Your task to perform on an android device: Open the stopwatch Image 0: 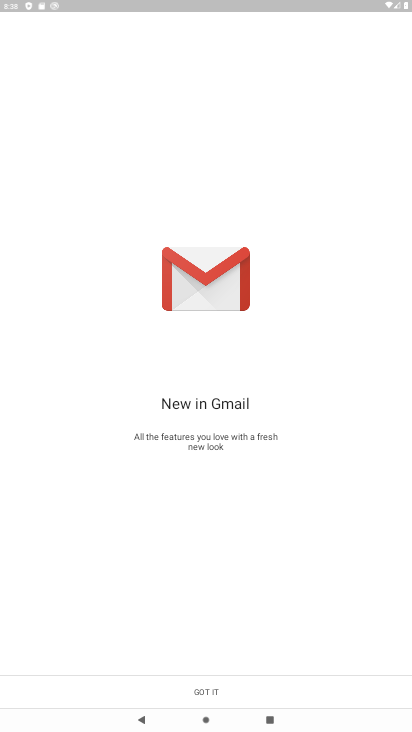
Step 0: click (229, 696)
Your task to perform on an android device: Open the stopwatch Image 1: 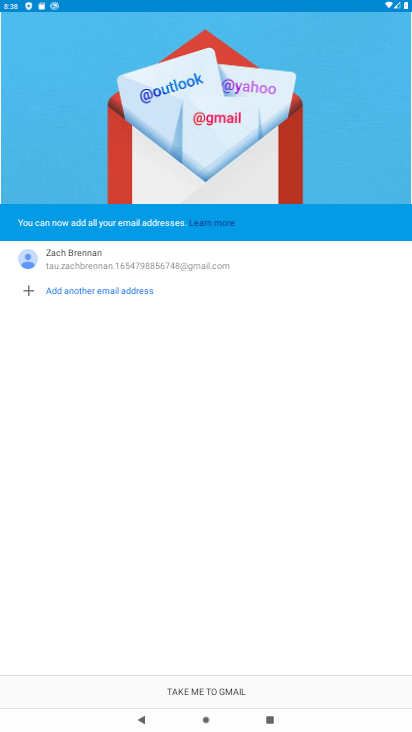
Step 1: click (230, 695)
Your task to perform on an android device: Open the stopwatch Image 2: 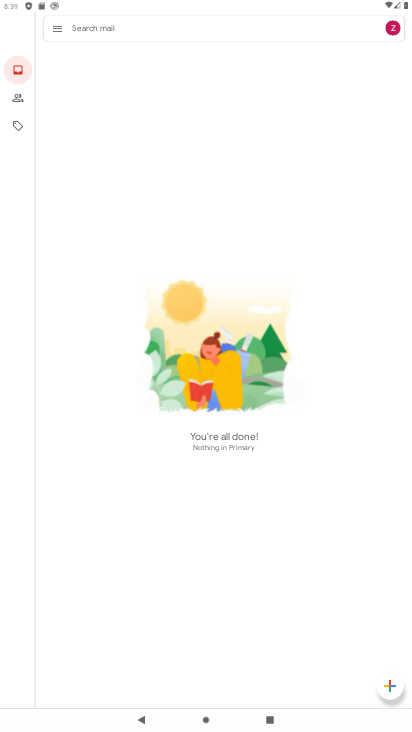
Step 2: press home button
Your task to perform on an android device: Open the stopwatch Image 3: 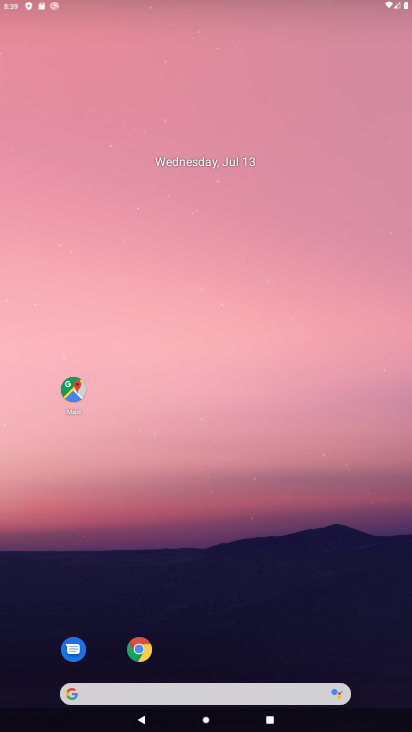
Step 3: drag from (251, 698) to (305, 58)
Your task to perform on an android device: Open the stopwatch Image 4: 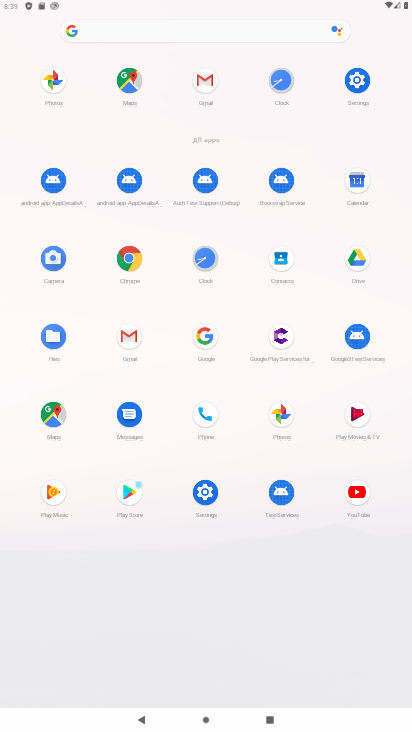
Step 4: click (201, 255)
Your task to perform on an android device: Open the stopwatch Image 5: 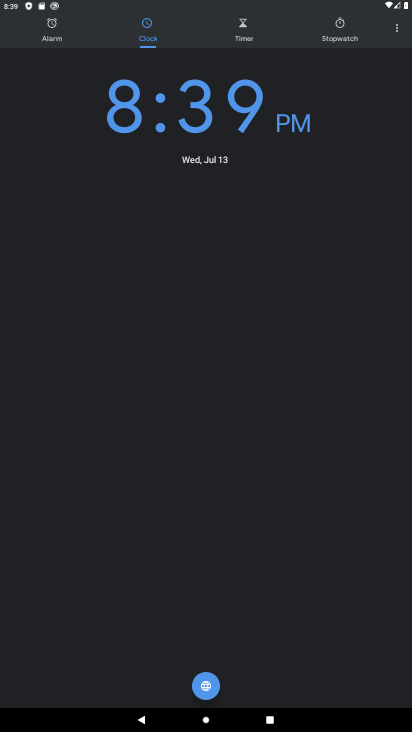
Step 5: click (338, 36)
Your task to perform on an android device: Open the stopwatch Image 6: 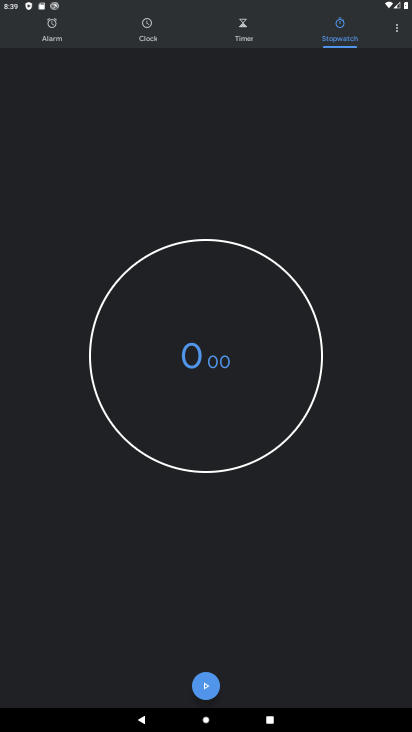
Step 6: click (204, 687)
Your task to perform on an android device: Open the stopwatch Image 7: 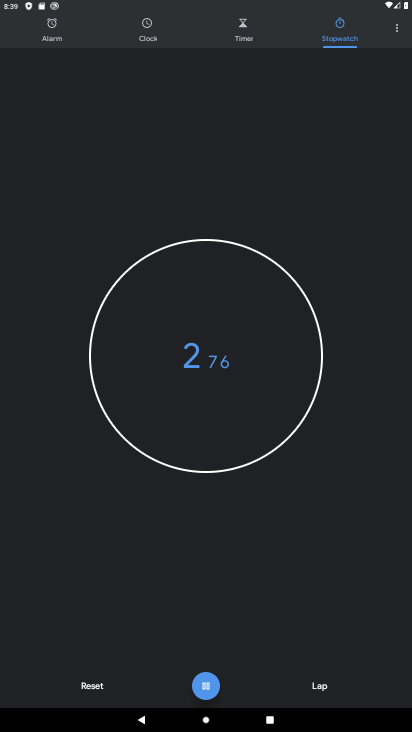
Step 7: task complete